Your task to perform on an android device: make emails show in primary in the gmail app Image 0: 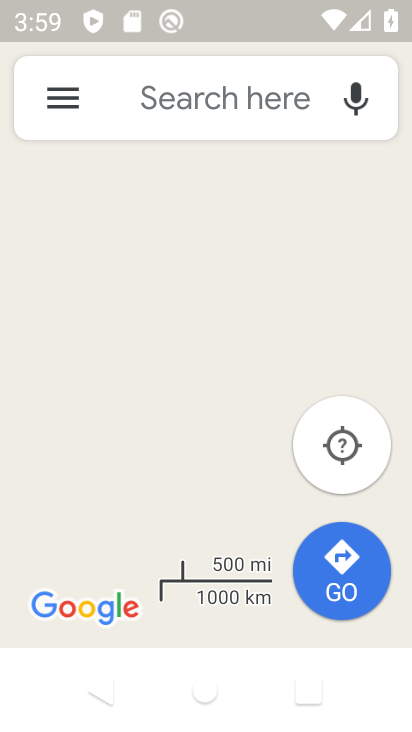
Step 0: press home button
Your task to perform on an android device: make emails show in primary in the gmail app Image 1: 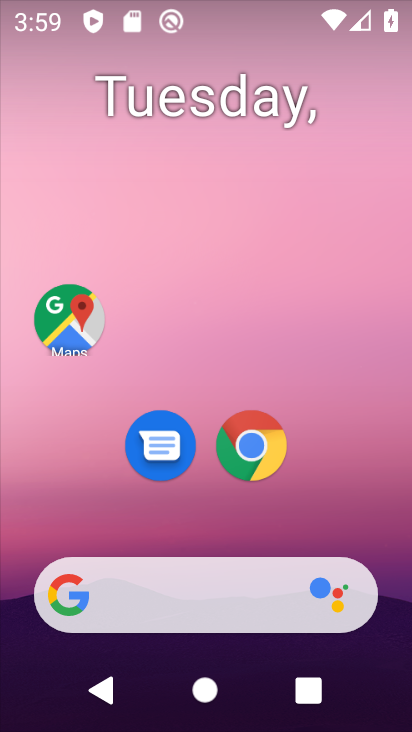
Step 1: drag from (372, 517) to (385, 77)
Your task to perform on an android device: make emails show in primary in the gmail app Image 2: 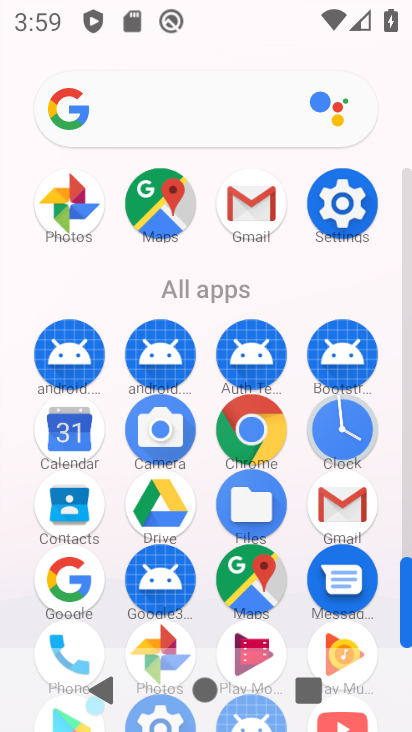
Step 2: click (352, 507)
Your task to perform on an android device: make emails show in primary in the gmail app Image 3: 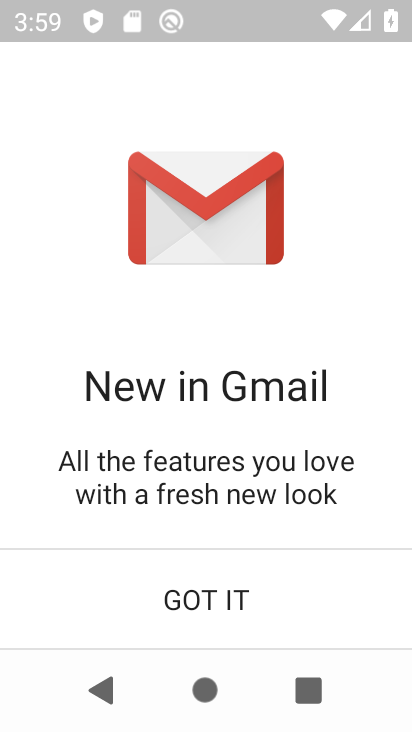
Step 3: click (260, 592)
Your task to perform on an android device: make emails show in primary in the gmail app Image 4: 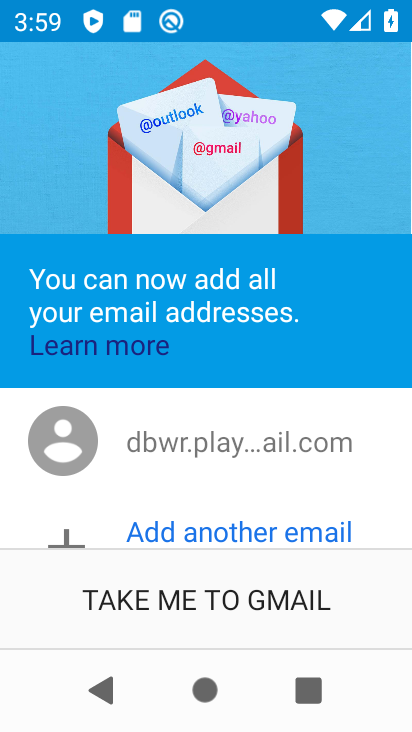
Step 4: click (255, 624)
Your task to perform on an android device: make emails show in primary in the gmail app Image 5: 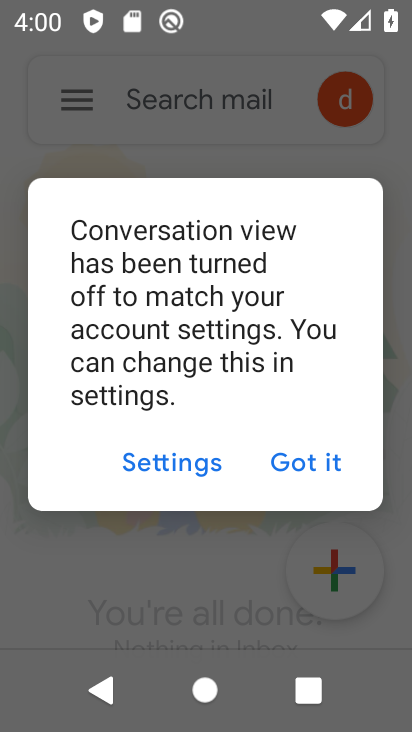
Step 5: click (278, 458)
Your task to perform on an android device: make emails show in primary in the gmail app Image 6: 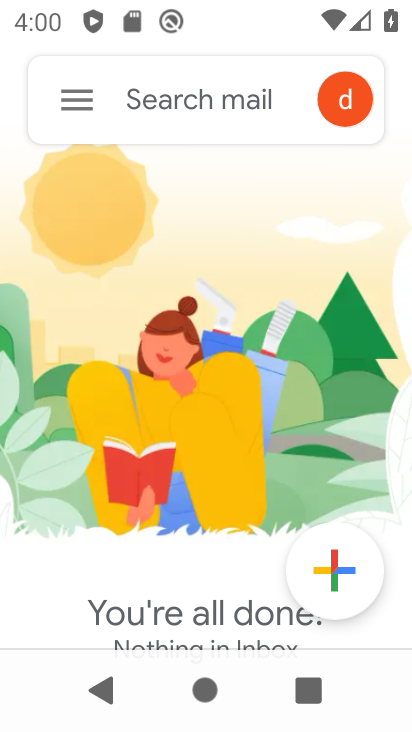
Step 6: click (85, 109)
Your task to perform on an android device: make emails show in primary in the gmail app Image 7: 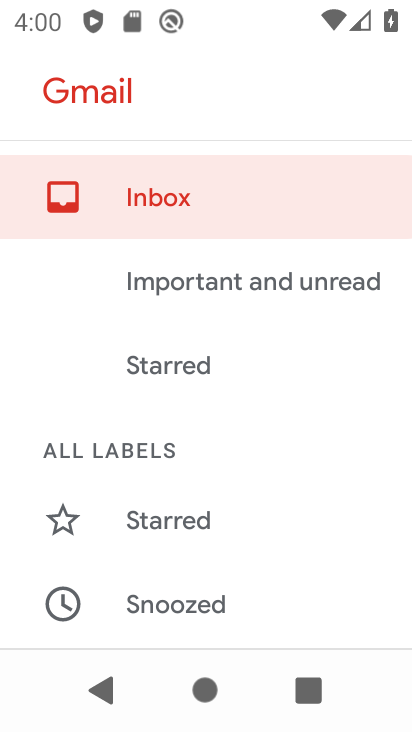
Step 7: drag from (283, 530) to (295, 396)
Your task to perform on an android device: make emails show in primary in the gmail app Image 8: 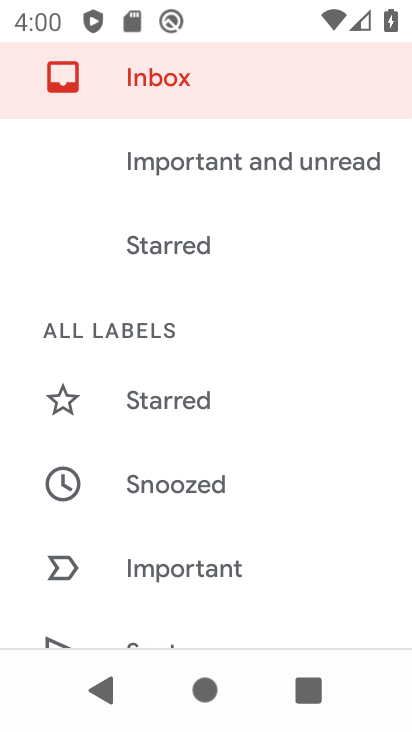
Step 8: drag from (320, 545) to (322, 412)
Your task to perform on an android device: make emails show in primary in the gmail app Image 9: 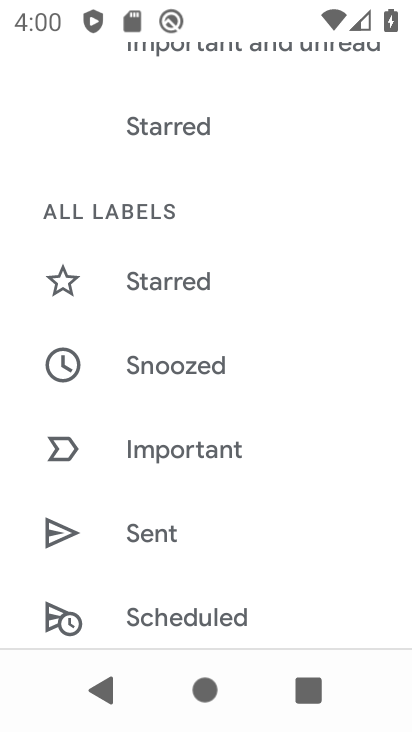
Step 9: drag from (312, 548) to (318, 325)
Your task to perform on an android device: make emails show in primary in the gmail app Image 10: 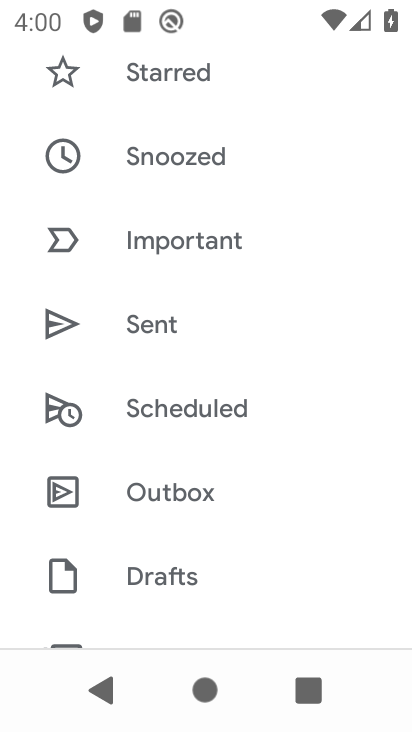
Step 10: drag from (302, 551) to (316, 393)
Your task to perform on an android device: make emails show in primary in the gmail app Image 11: 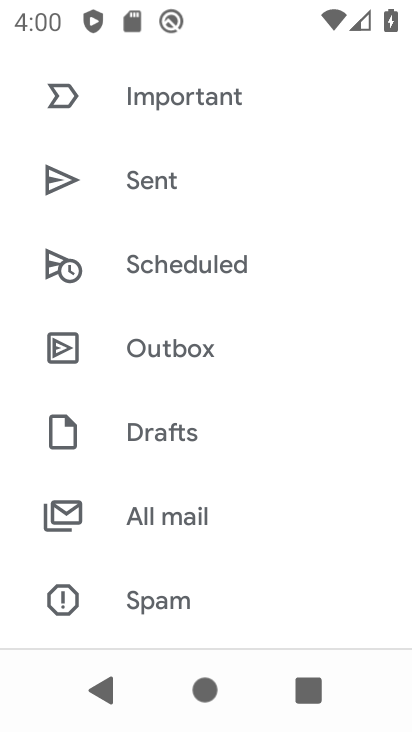
Step 11: drag from (301, 560) to (312, 324)
Your task to perform on an android device: make emails show in primary in the gmail app Image 12: 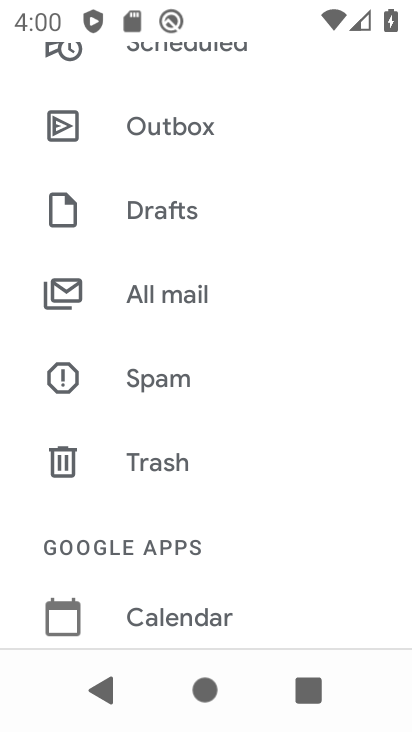
Step 12: drag from (298, 546) to (308, 332)
Your task to perform on an android device: make emails show in primary in the gmail app Image 13: 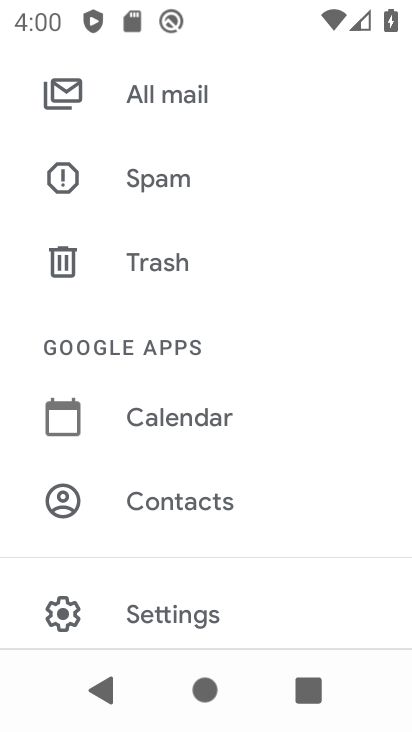
Step 13: click (225, 608)
Your task to perform on an android device: make emails show in primary in the gmail app Image 14: 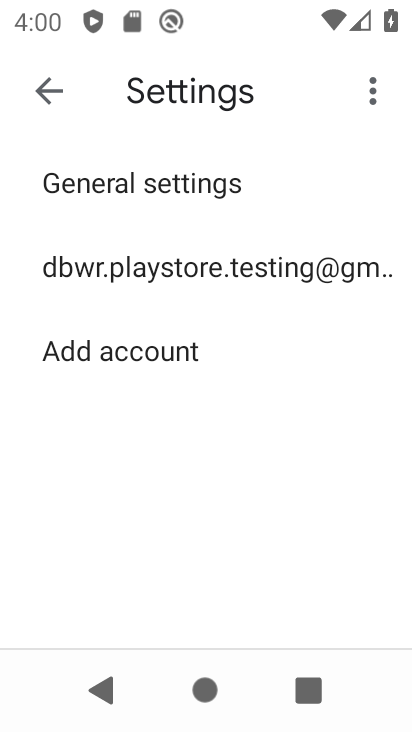
Step 14: click (244, 249)
Your task to perform on an android device: make emails show in primary in the gmail app Image 15: 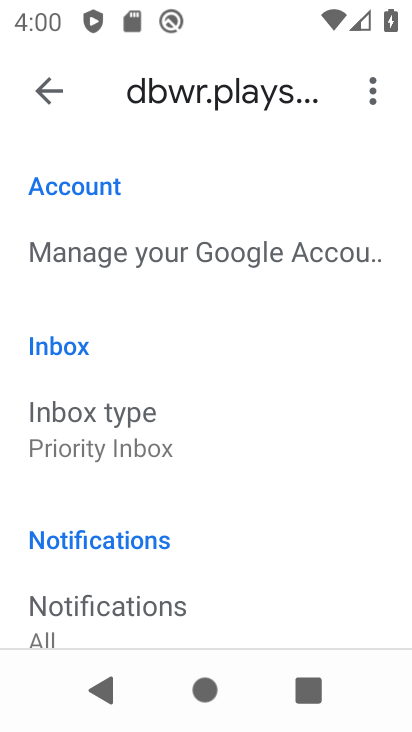
Step 15: click (152, 455)
Your task to perform on an android device: make emails show in primary in the gmail app Image 16: 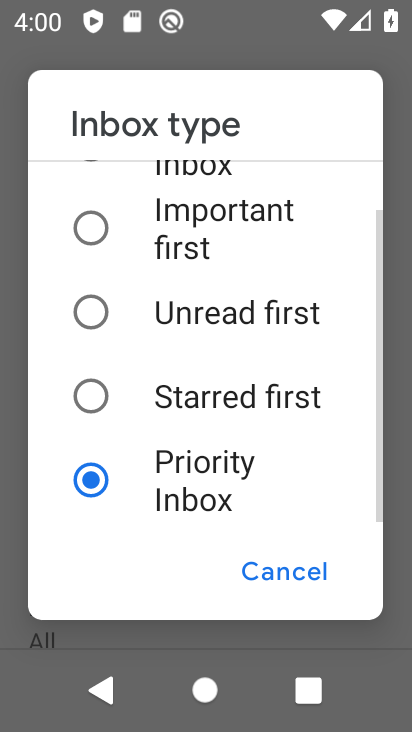
Step 16: drag from (190, 202) to (205, 397)
Your task to perform on an android device: make emails show in primary in the gmail app Image 17: 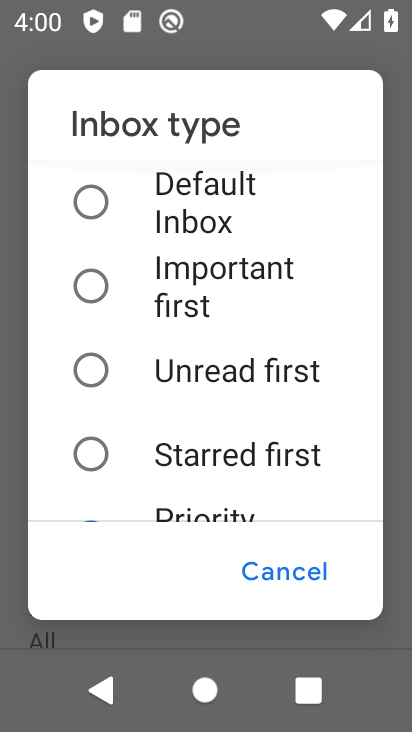
Step 17: click (184, 213)
Your task to perform on an android device: make emails show in primary in the gmail app Image 18: 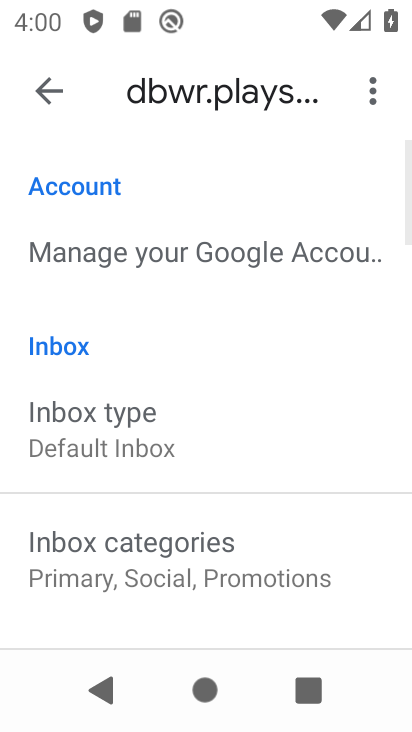
Step 18: click (213, 544)
Your task to perform on an android device: make emails show in primary in the gmail app Image 19: 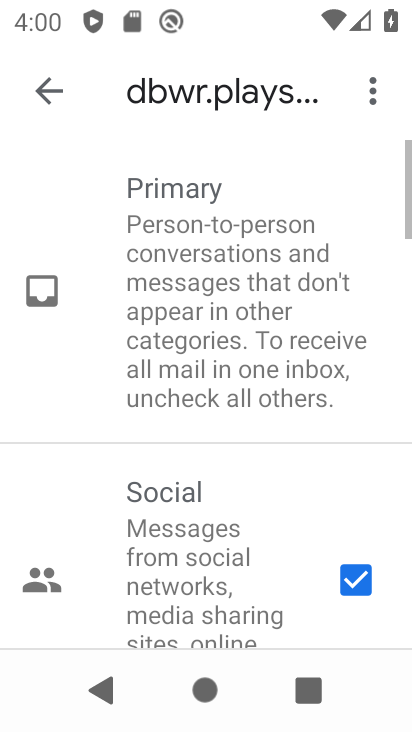
Step 19: drag from (308, 502) to (309, 235)
Your task to perform on an android device: make emails show in primary in the gmail app Image 20: 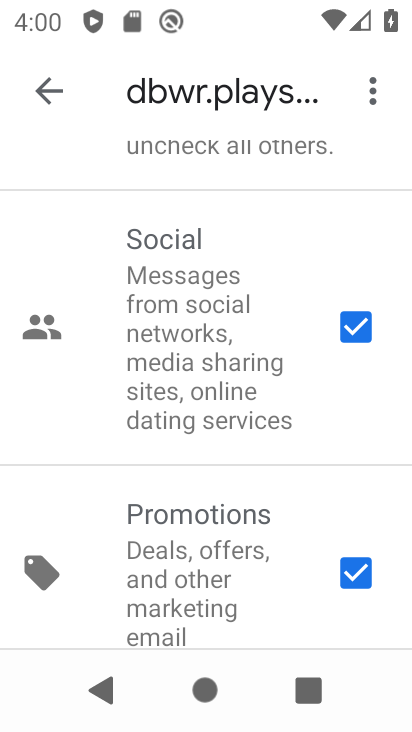
Step 20: click (366, 302)
Your task to perform on an android device: make emails show in primary in the gmail app Image 21: 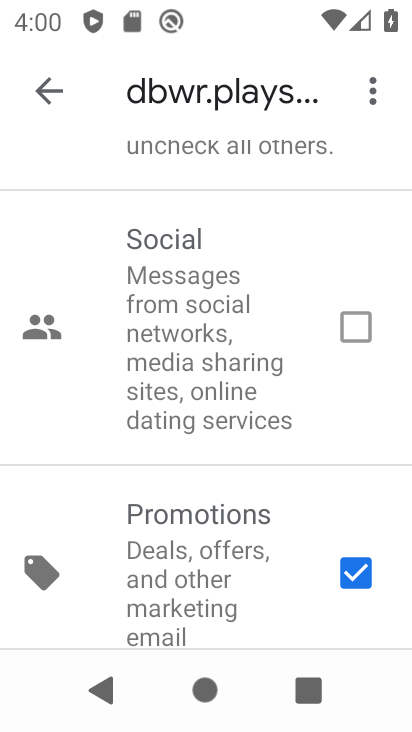
Step 21: click (345, 572)
Your task to perform on an android device: make emails show in primary in the gmail app Image 22: 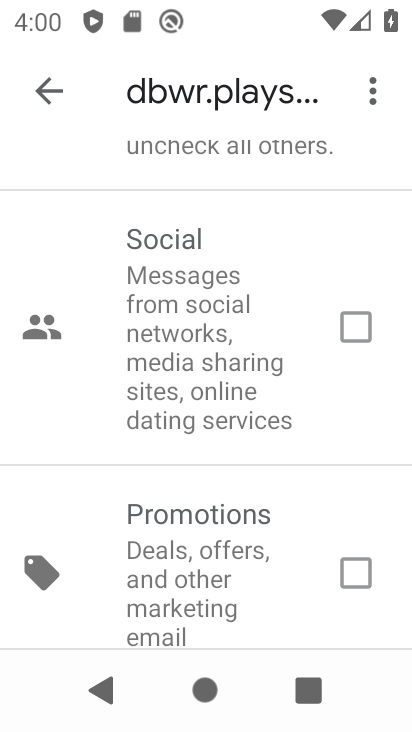
Step 22: task complete